Your task to perform on an android device: Set the phone to "Do not disturb". Image 0: 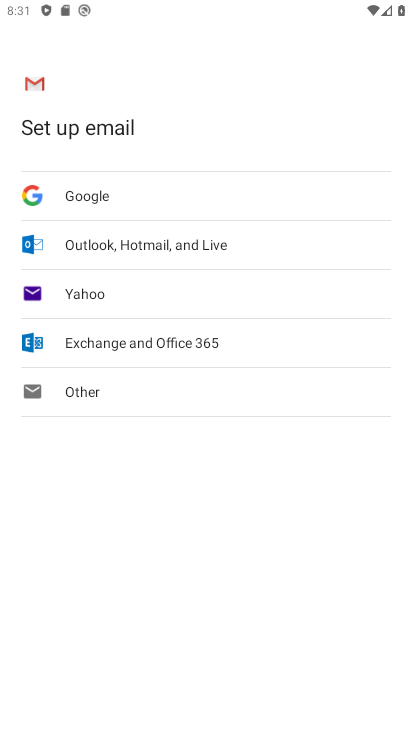
Step 0: drag from (114, 6) to (26, 486)
Your task to perform on an android device: Set the phone to "Do not disturb". Image 1: 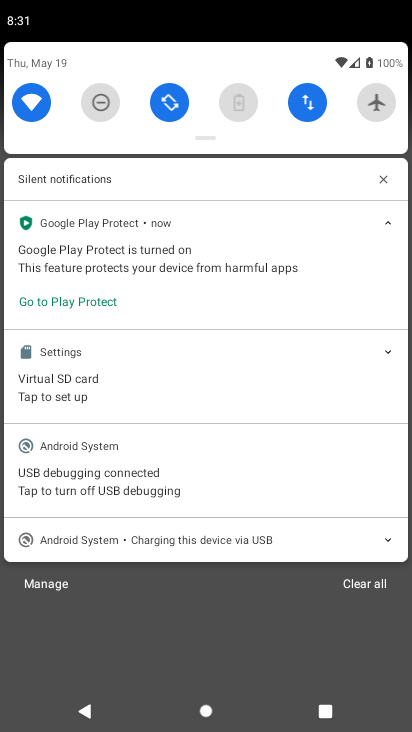
Step 1: click (97, 102)
Your task to perform on an android device: Set the phone to "Do not disturb". Image 2: 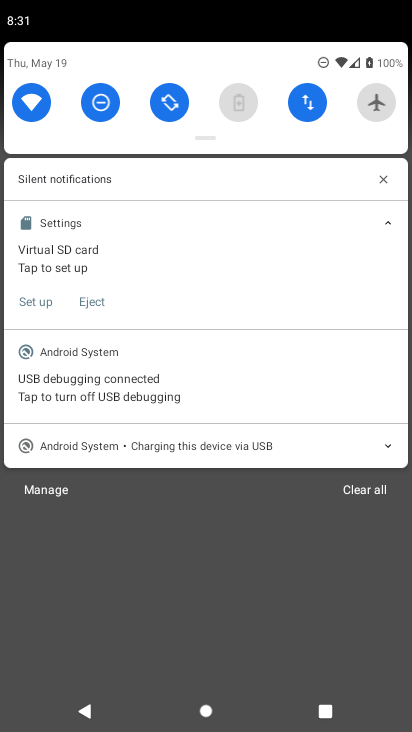
Step 2: task complete